Your task to perform on an android device: Open Google Image 0: 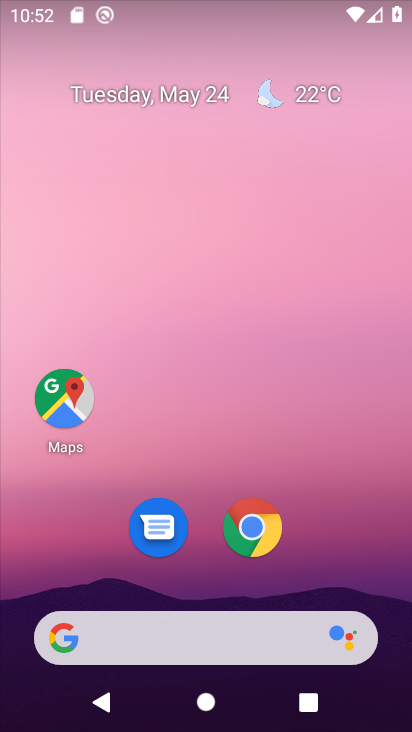
Step 0: drag from (232, 502) to (336, 132)
Your task to perform on an android device: Open Google Image 1: 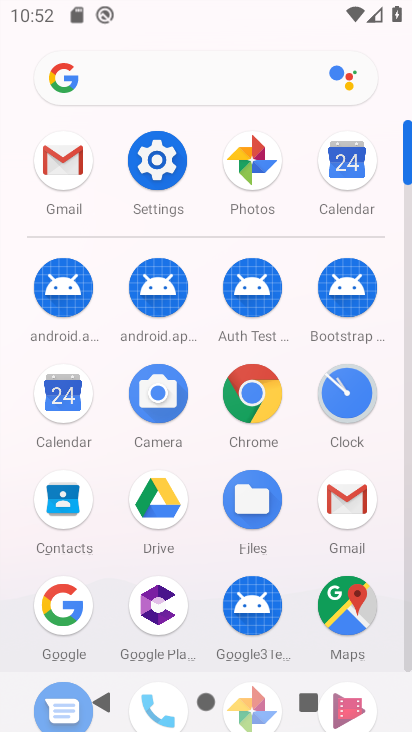
Step 1: click (63, 612)
Your task to perform on an android device: Open Google Image 2: 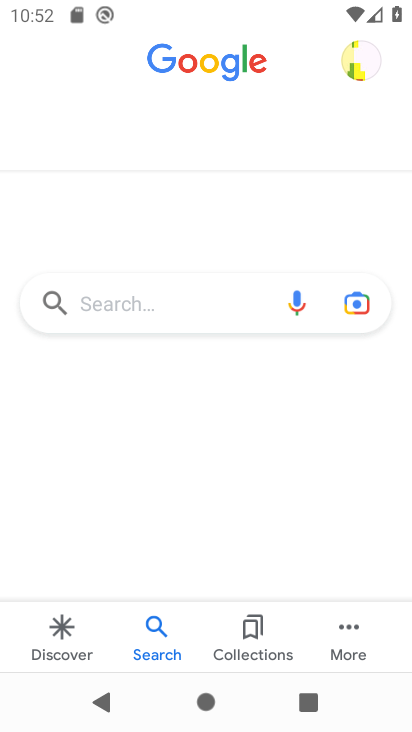
Step 2: task complete